Your task to perform on an android device: Go to wifi settings Image 0: 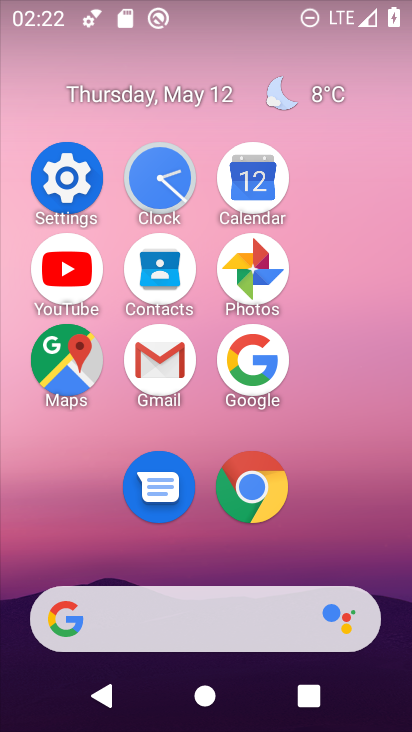
Step 0: click (78, 178)
Your task to perform on an android device: Go to wifi settings Image 1: 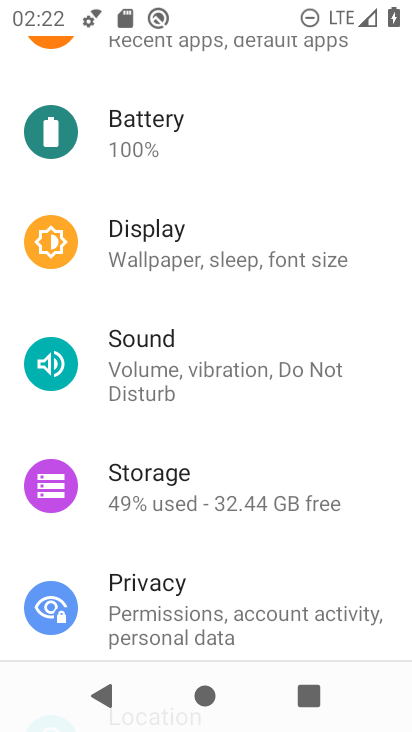
Step 1: drag from (278, 157) to (336, 563)
Your task to perform on an android device: Go to wifi settings Image 2: 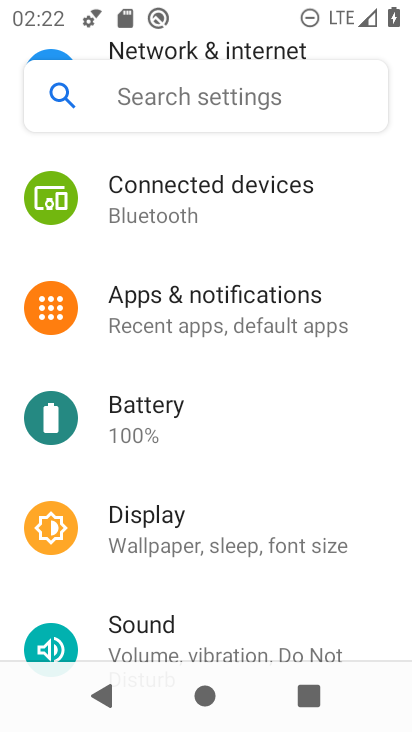
Step 2: drag from (337, 238) to (324, 545)
Your task to perform on an android device: Go to wifi settings Image 3: 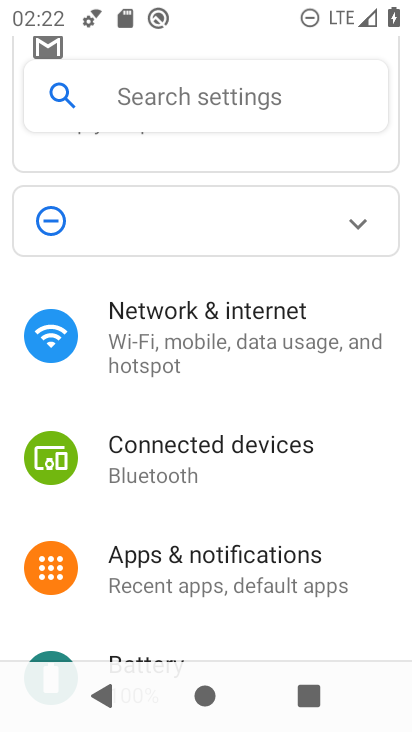
Step 3: click (273, 340)
Your task to perform on an android device: Go to wifi settings Image 4: 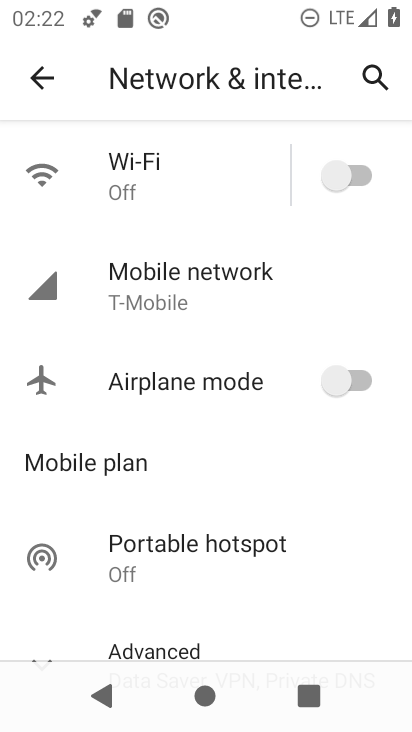
Step 4: click (355, 165)
Your task to perform on an android device: Go to wifi settings Image 5: 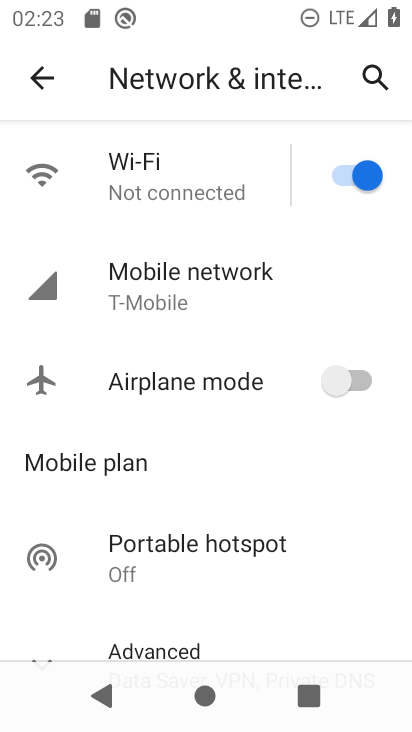
Step 5: click (194, 187)
Your task to perform on an android device: Go to wifi settings Image 6: 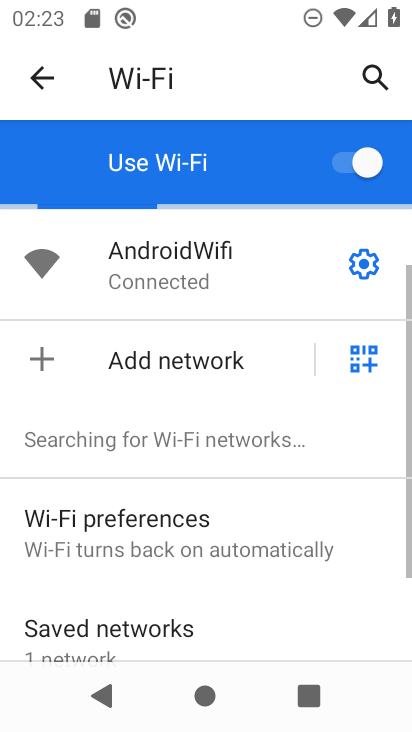
Step 6: click (363, 269)
Your task to perform on an android device: Go to wifi settings Image 7: 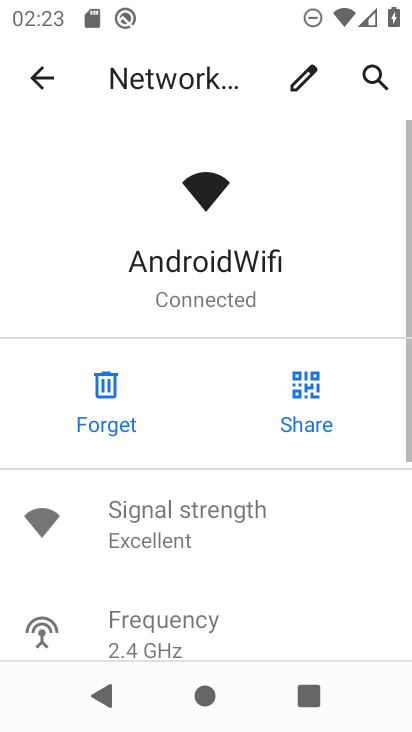
Step 7: task complete